Your task to perform on an android device: check android version Image 0: 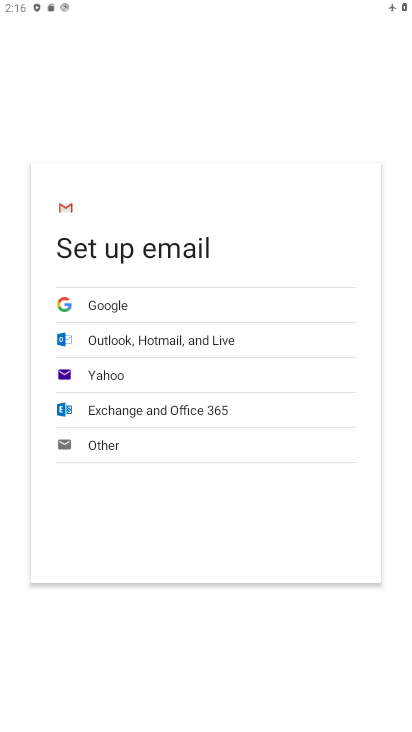
Step 0: press home button
Your task to perform on an android device: check android version Image 1: 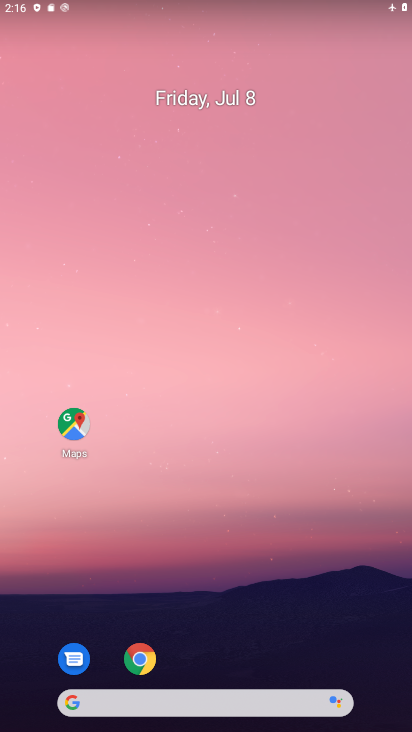
Step 1: drag from (232, 629) to (257, 92)
Your task to perform on an android device: check android version Image 2: 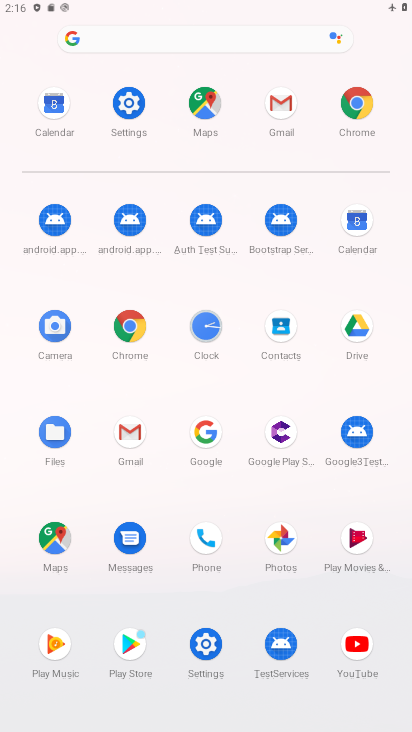
Step 2: click (220, 646)
Your task to perform on an android device: check android version Image 3: 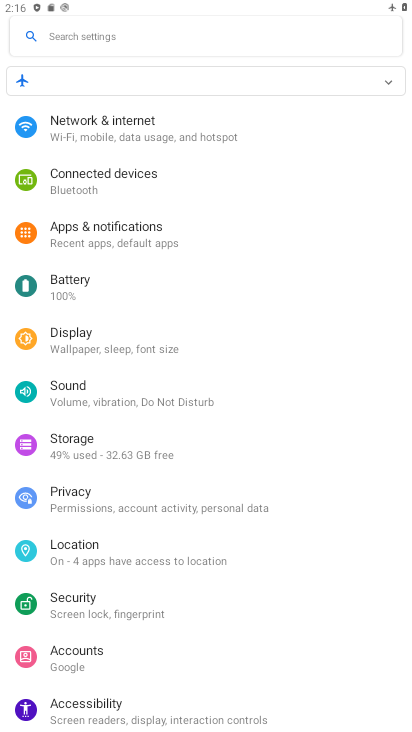
Step 3: drag from (130, 660) to (166, 271)
Your task to perform on an android device: check android version Image 4: 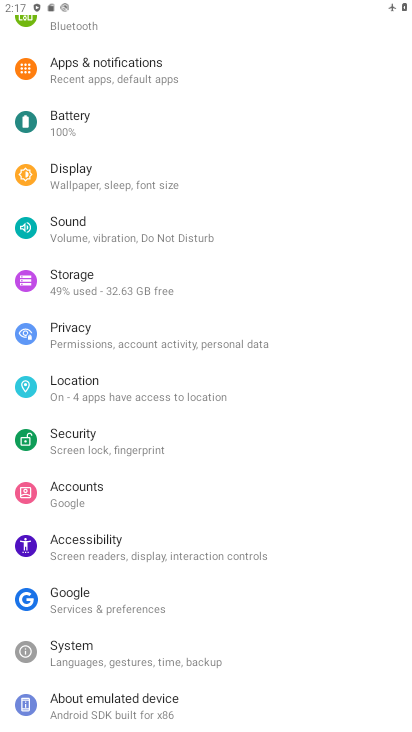
Step 4: drag from (231, 300) to (222, 403)
Your task to perform on an android device: check android version Image 5: 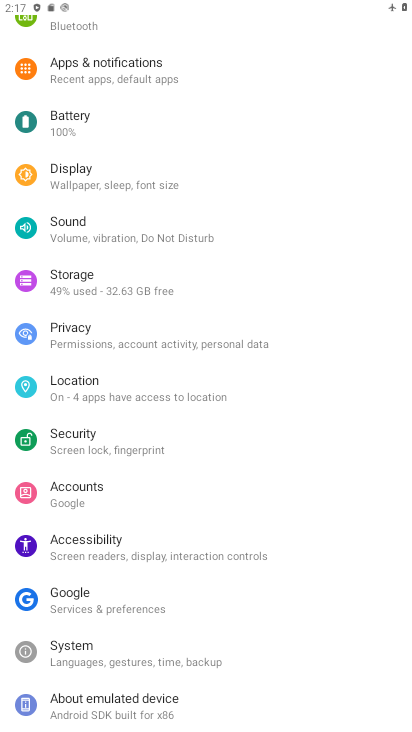
Step 5: drag from (216, 257) to (265, 603)
Your task to perform on an android device: check android version Image 6: 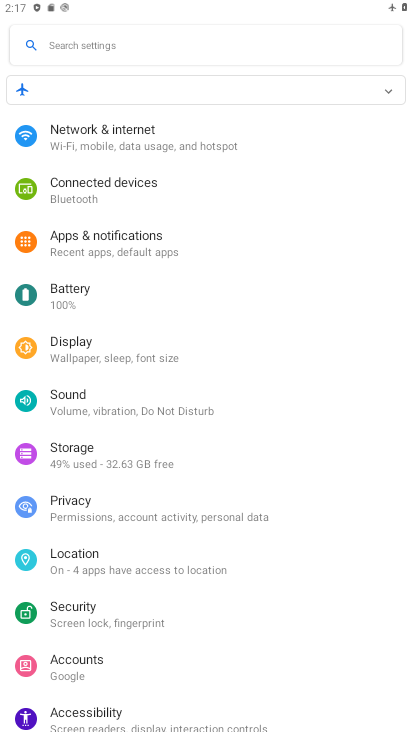
Step 6: drag from (256, 285) to (252, 408)
Your task to perform on an android device: check android version Image 7: 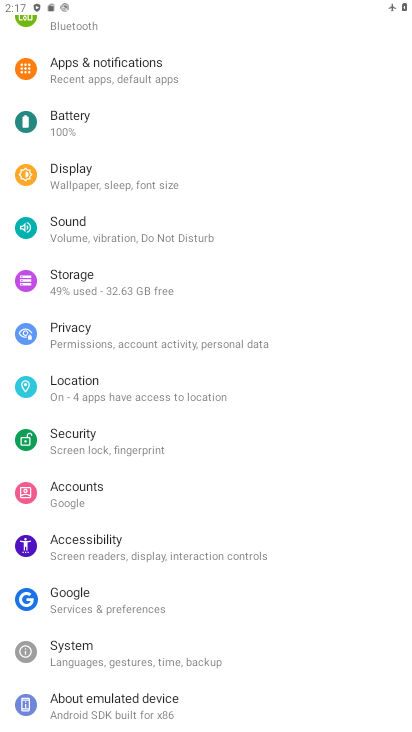
Step 7: click (166, 710)
Your task to perform on an android device: check android version Image 8: 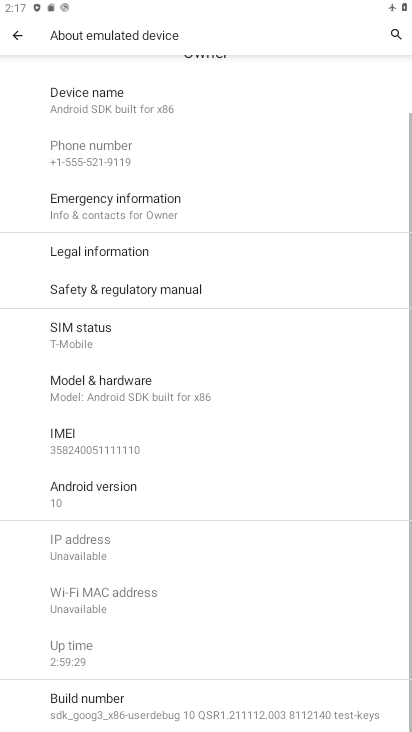
Step 8: click (207, 504)
Your task to perform on an android device: check android version Image 9: 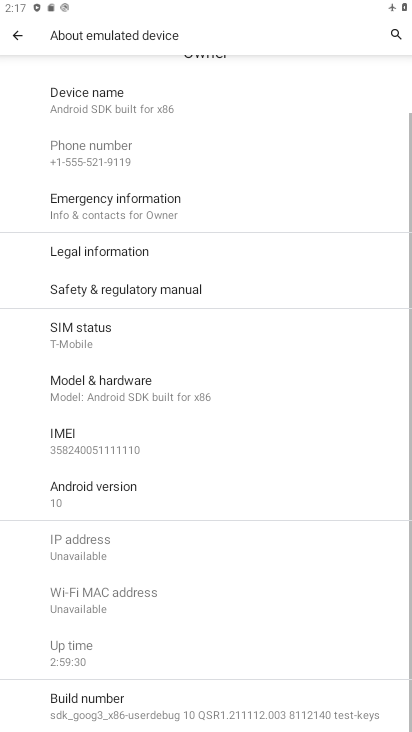
Step 9: click (207, 504)
Your task to perform on an android device: check android version Image 10: 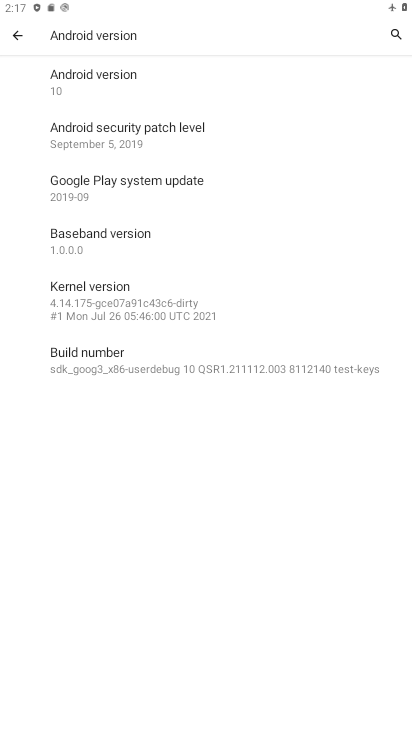
Step 10: click (204, 99)
Your task to perform on an android device: check android version Image 11: 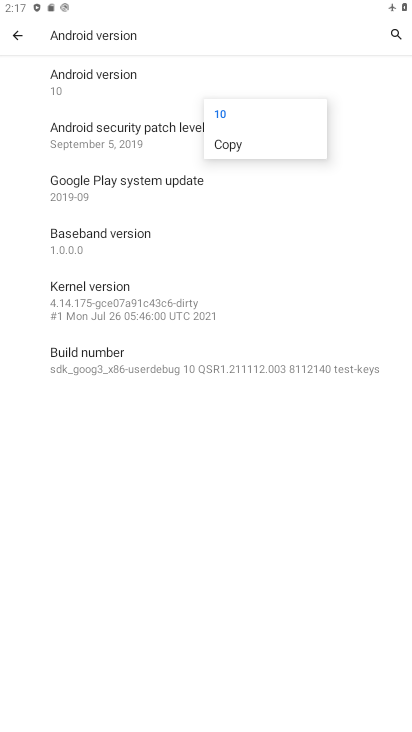
Step 11: click (204, 100)
Your task to perform on an android device: check android version Image 12: 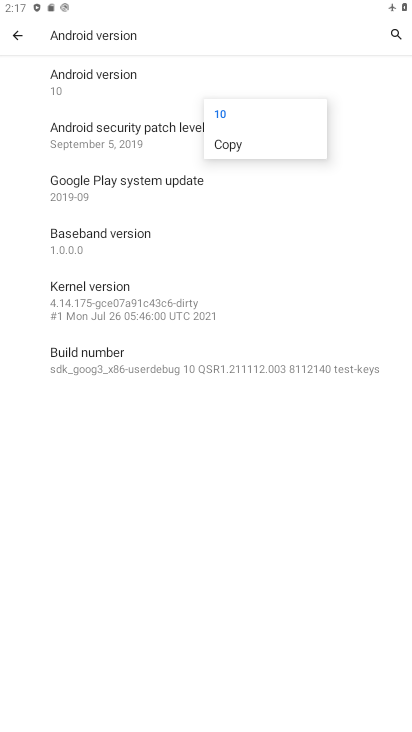
Step 12: click (204, 100)
Your task to perform on an android device: check android version Image 13: 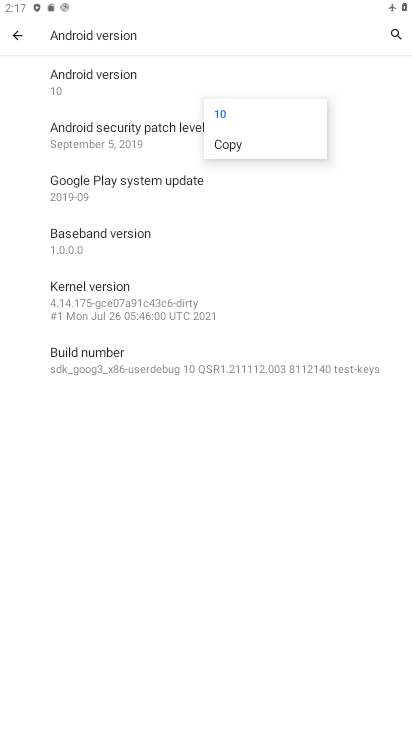
Step 13: click (133, 90)
Your task to perform on an android device: check android version Image 14: 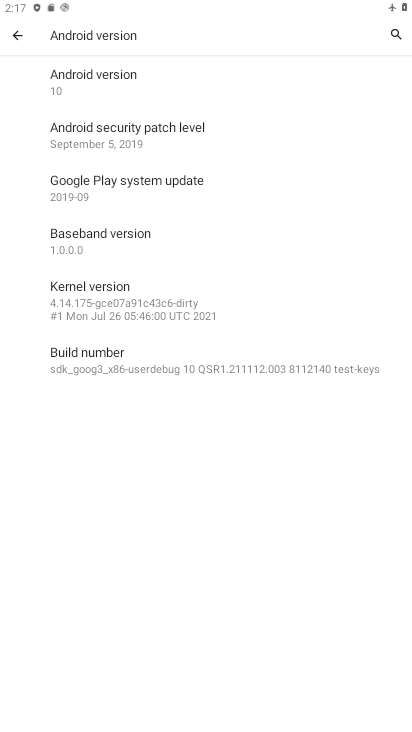
Step 14: task complete